Your task to perform on an android device: Do I have any events tomorrow? Image 0: 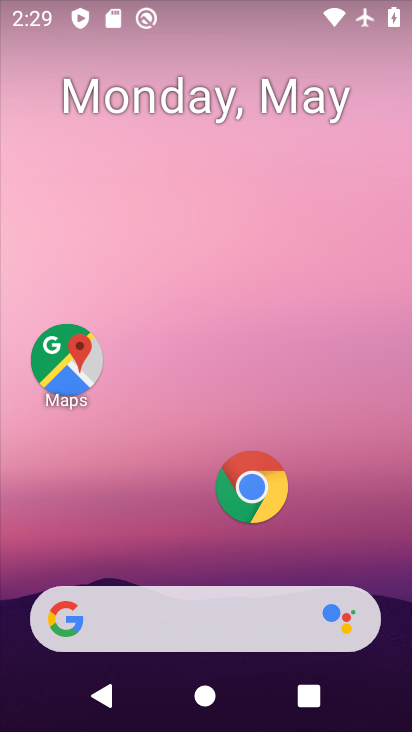
Step 0: drag from (175, 530) to (177, 110)
Your task to perform on an android device: Do I have any events tomorrow? Image 1: 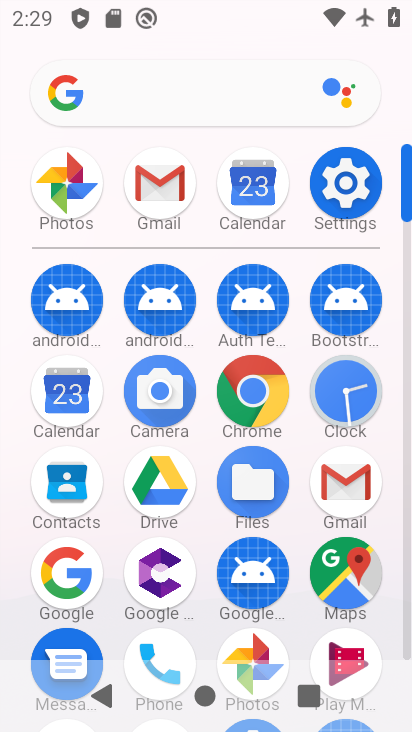
Step 1: click (57, 397)
Your task to perform on an android device: Do I have any events tomorrow? Image 2: 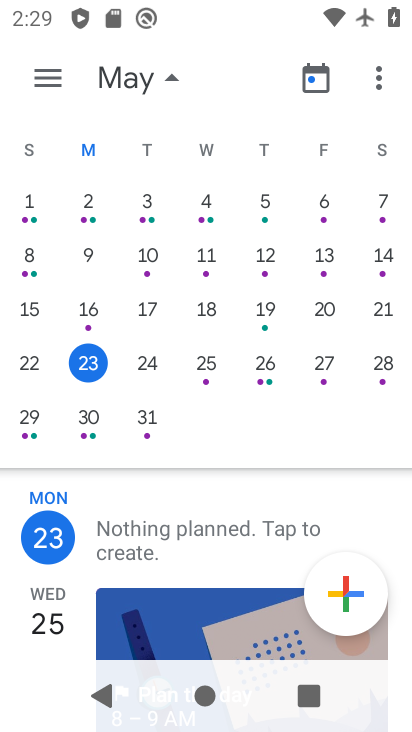
Step 2: click (150, 362)
Your task to perform on an android device: Do I have any events tomorrow? Image 3: 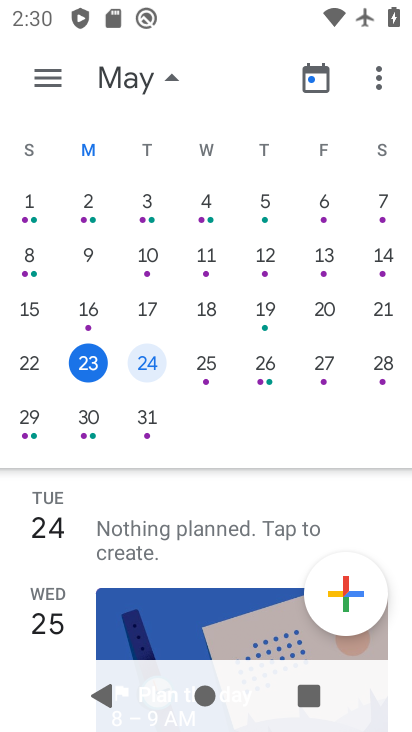
Step 3: task complete